Your task to perform on an android device: Go to accessibility settings Image 0: 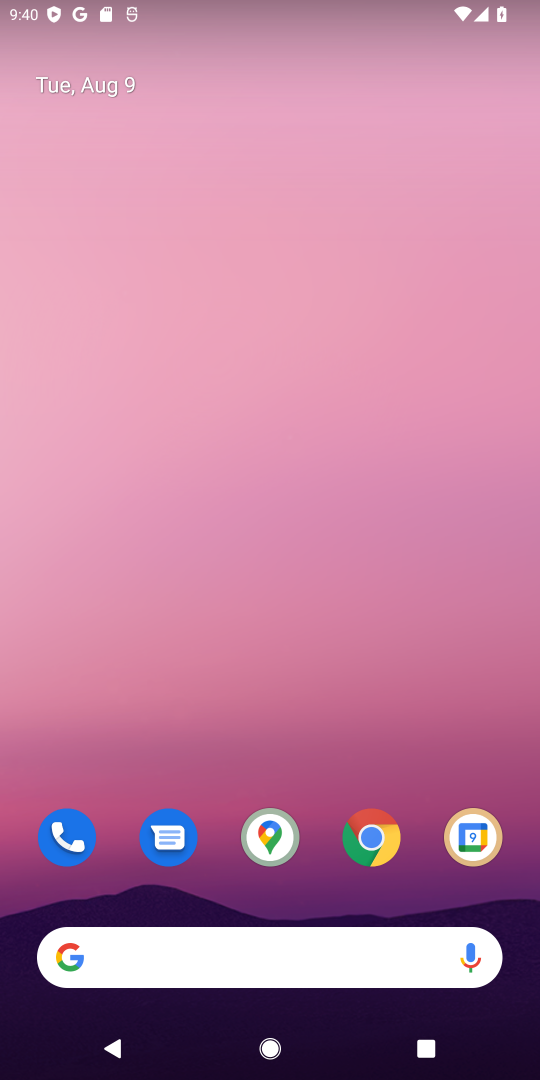
Step 0: drag from (325, 834) to (325, 297)
Your task to perform on an android device: Go to accessibility settings Image 1: 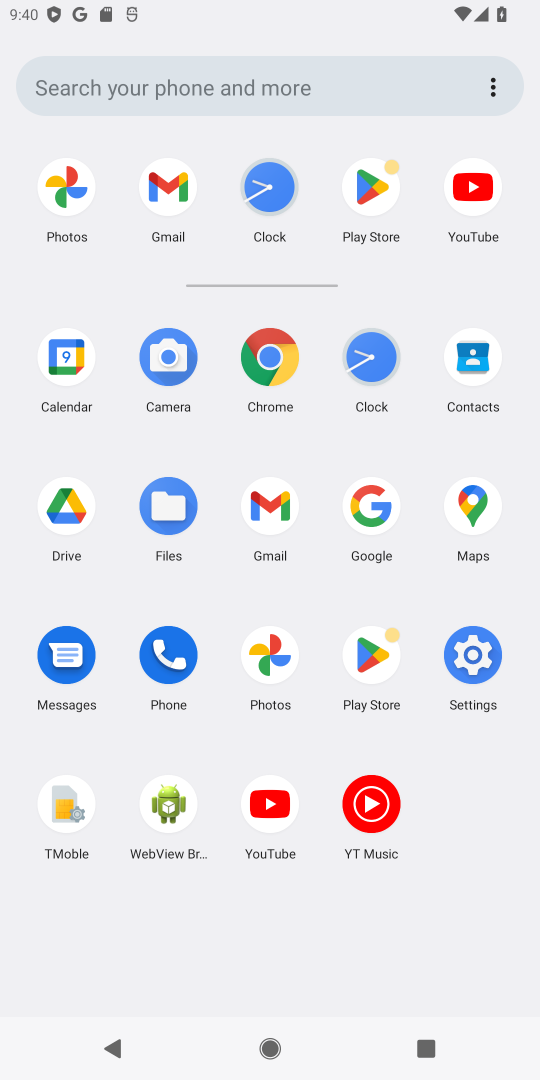
Step 1: click (479, 645)
Your task to perform on an android device: Go to accessibility settings Image 2: 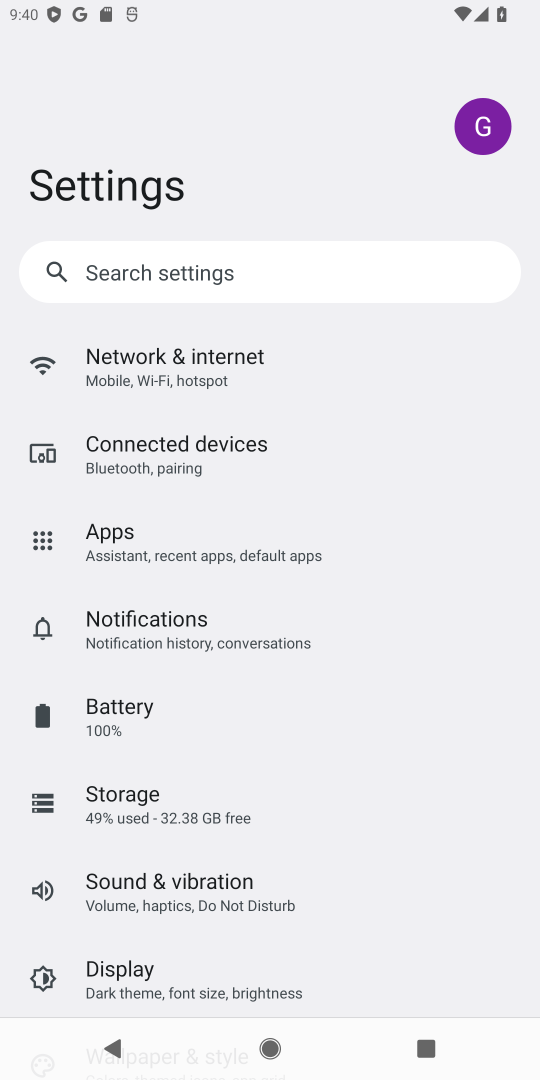
Step 2: drag from (167, 946) to (164, 454)
Your task to perform on an android device: Go to accessibility settings Image 3: 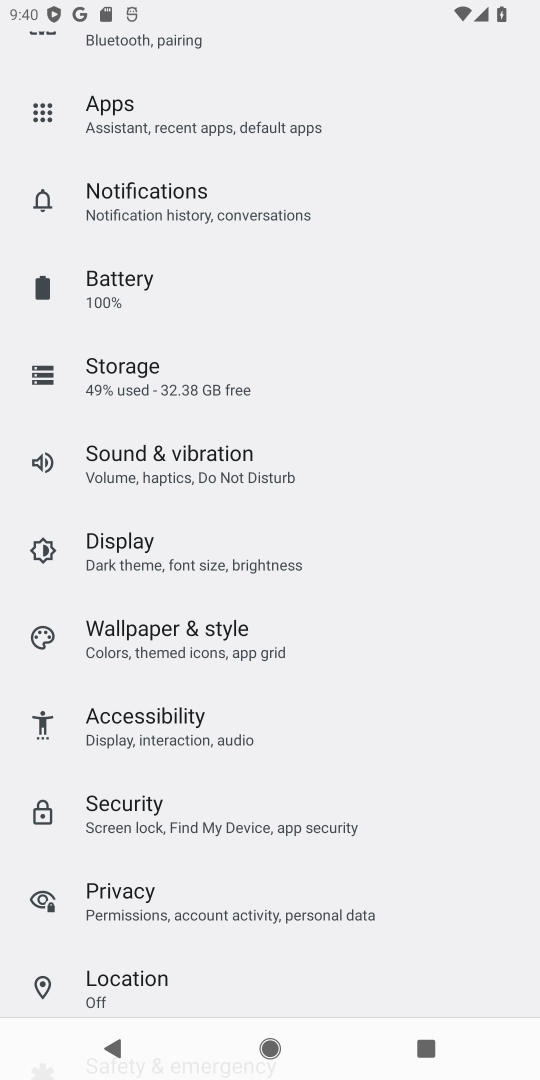
Step 3: drag from (157, 986) to (142, 556)
Your task to perform on an android device: Go to accessibility settings Image 4: 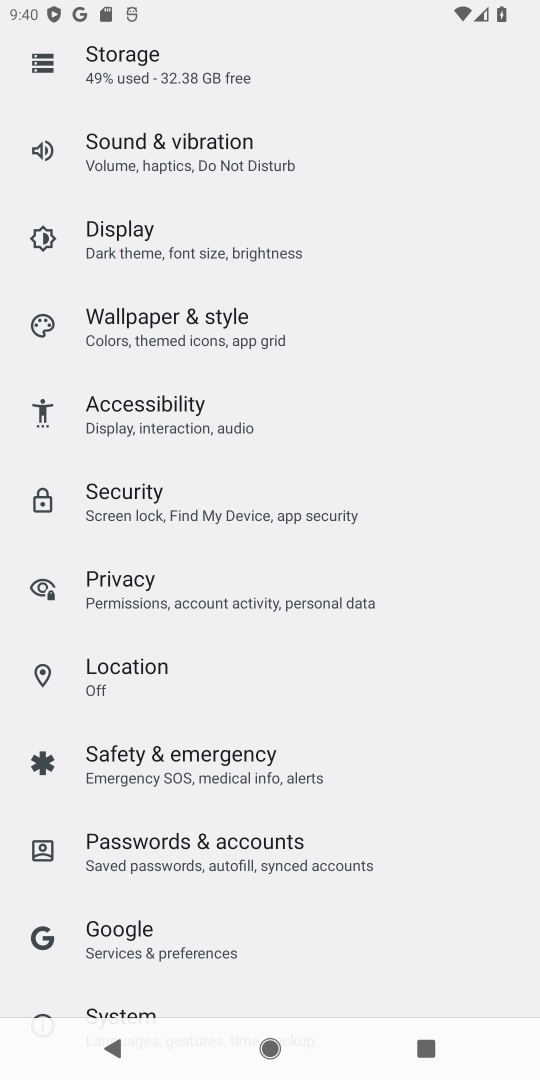
Step 4: click (133, 409)
Your task to perform on an android device: Go to accessibility settings Image 5: 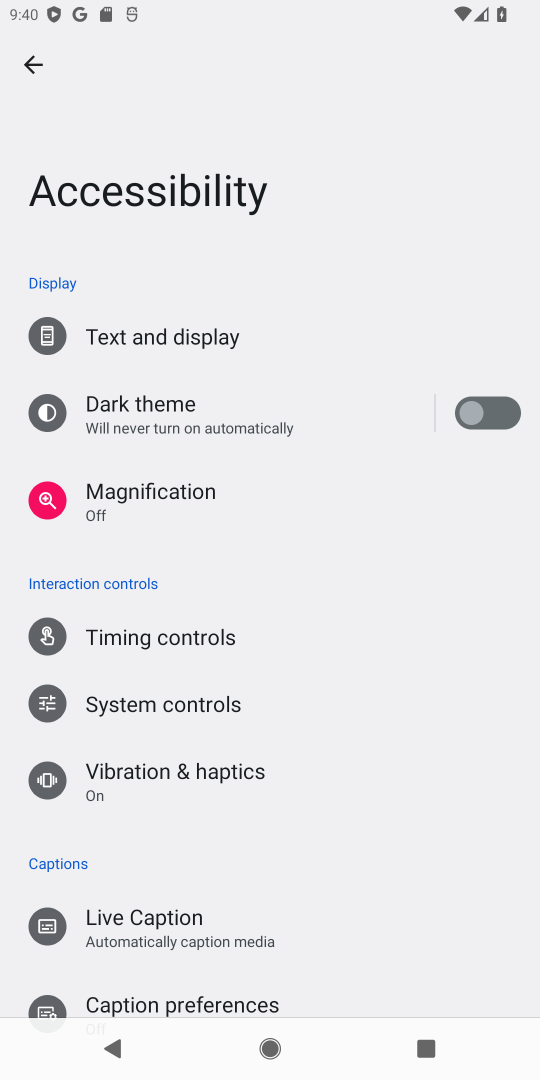
Step 5: task complete